Your task to perform on an android device: toggle priority inbox in the gmail app Image 0: 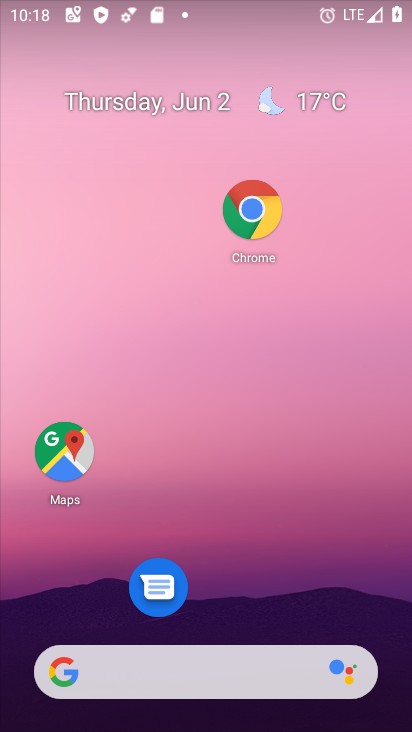
Step 0: press home button
Your task to perform on an android device: toggle priority inbox in the gmail app Image 1: 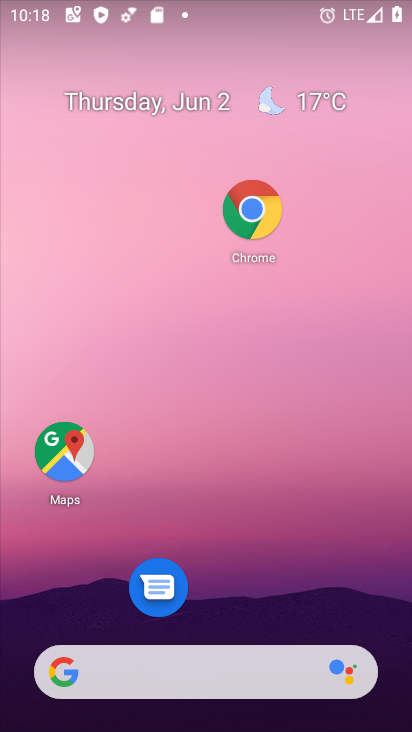
Step 1: drag from (211, 630) to (201, 165)
Your task to perform on an android device: toggle priority inbox in the gmail app Image 2: 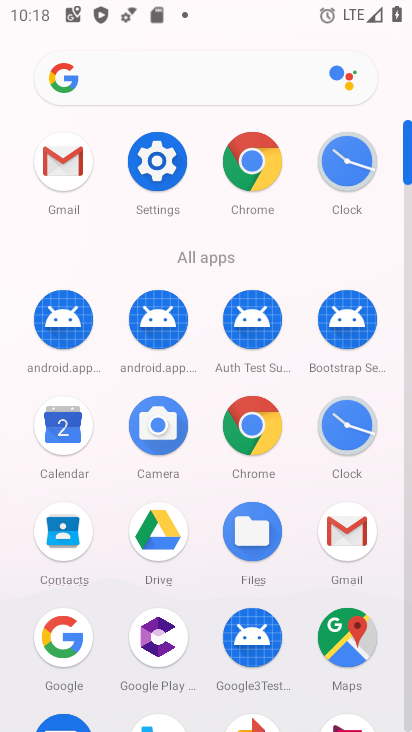
Step 2: click (60, 159)
Your task to perform on an android device: toggle priority inbox in the gmail app Image 3: 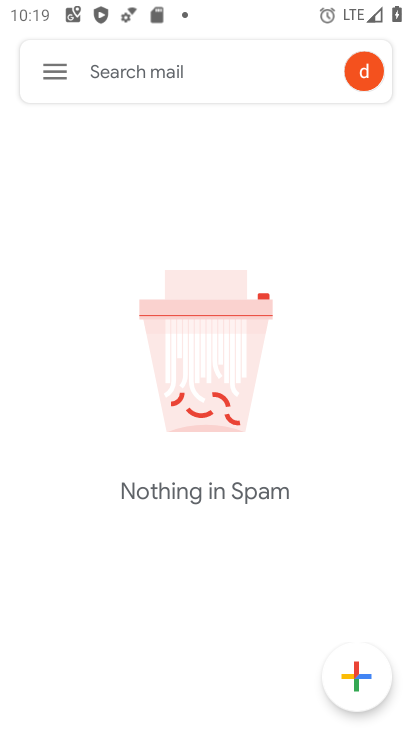
Step 3: click (53, 72)
Your task to perform on an android device: toggle priority inbox in the gmail app Image 4: 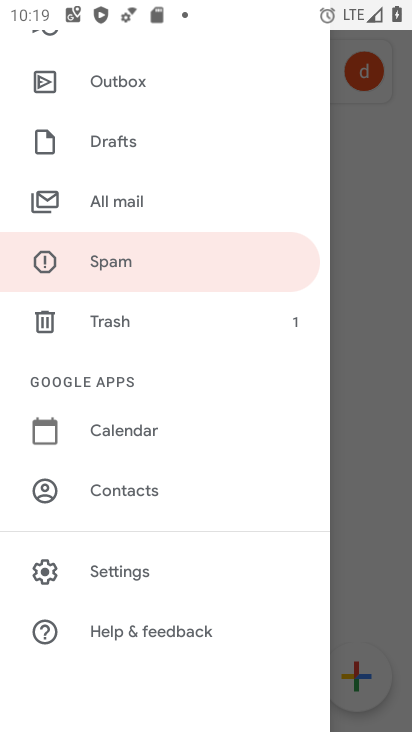
Step 4: click (158, 560)
Your task to perform on an android device: toggle priority inbox in the gmail app Image 5: 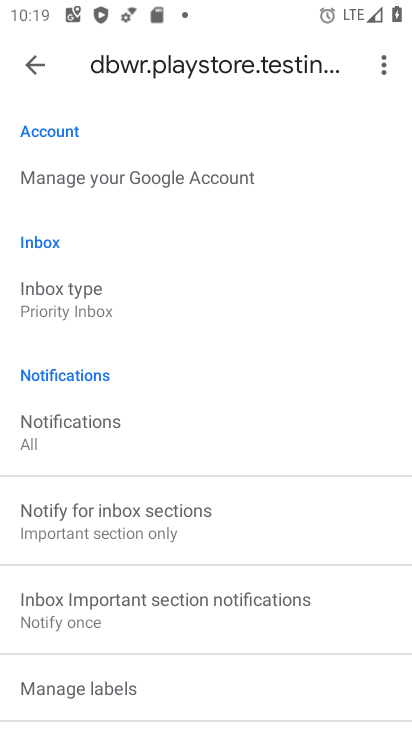
Step 5: click (122, 299)
Your task to perform on an android device: toggle priority inbox in the gmail app Image 6: 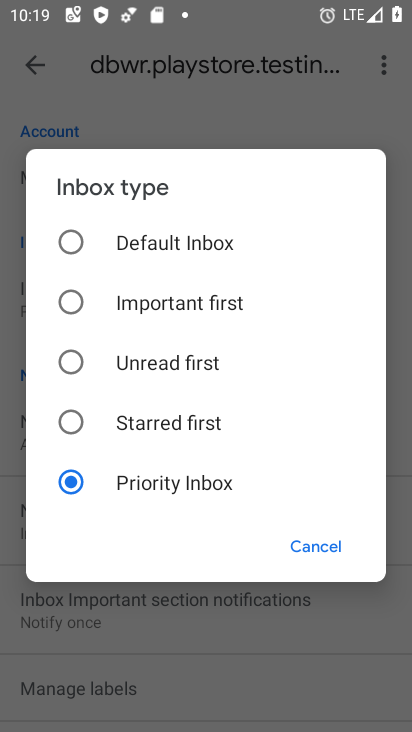
Step 6: click (176, 480)
Your task to perform on an android device: toggle priority inbox in the gmail app Image 7: 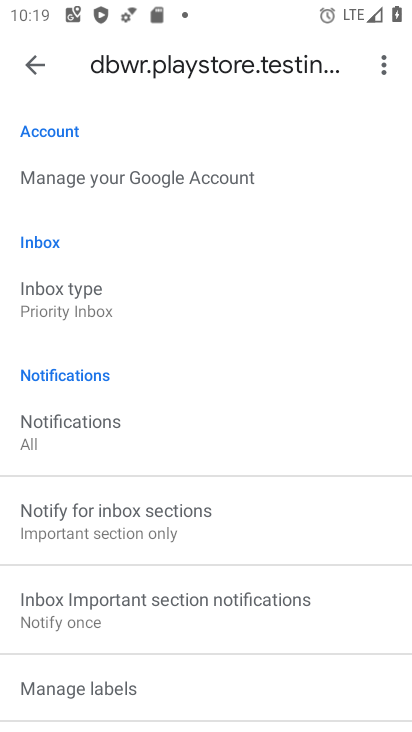
Step 7: task complete